Your task to perform on an android device: open app "DuckDuckGo Privacy Browser" Image 0: 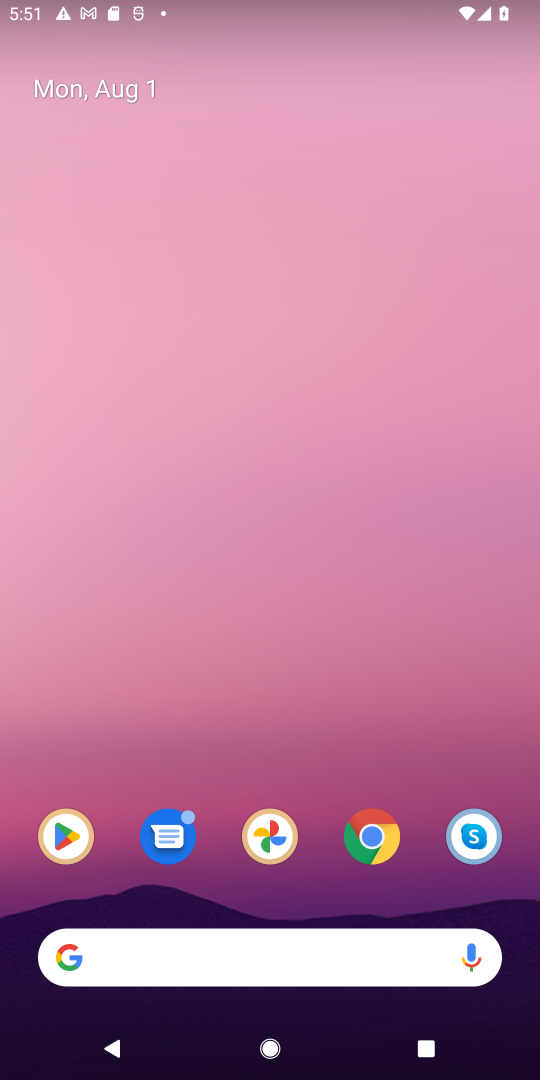
Step 0: press home button
Your task to perform on an android device: open app "DuckDuckGo Privacy Browser" Image 1: 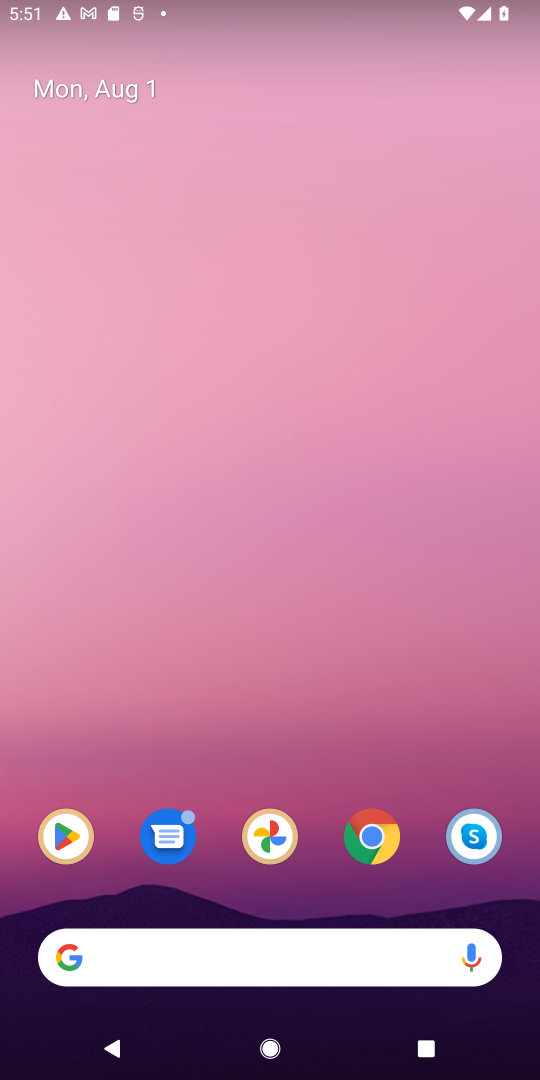
Step 1: click (62, 837)
Your task to perform on an android device: open app "DuckDuckGo Privacy Browser" Image 2: 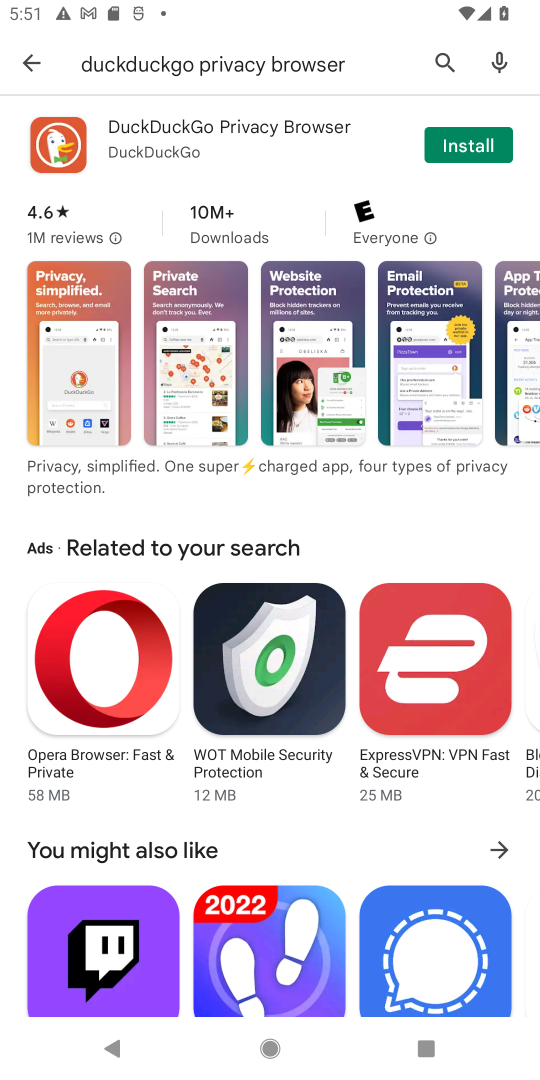
Step 2: task complete